Your task to perform on an android device: change timer sound Image 0: 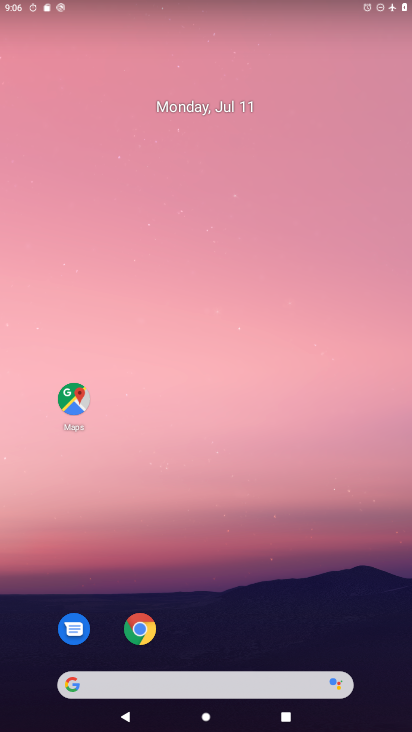
Step 0: drag from (261, 643) to (285, 56)
Your task to perform on an android device: change timer sound Image 1: 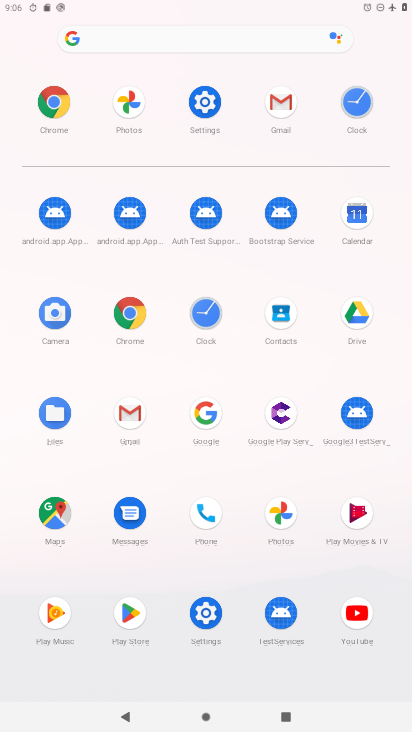
Step 1: click (205, 314)
Your task to perform on an android device: change timer sound Image 2: 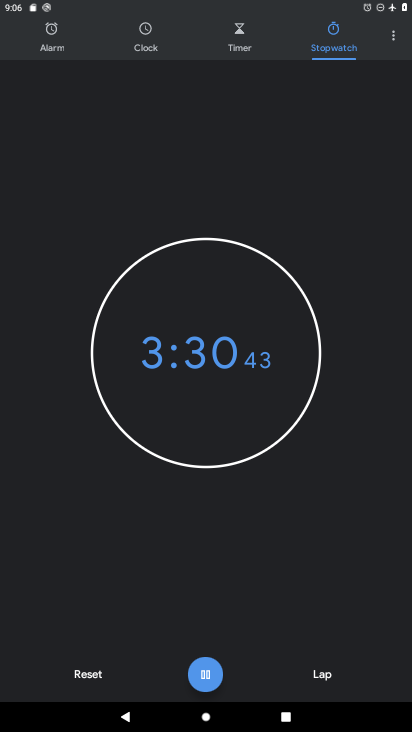
Step 2: click (388, 34)
Your task to perform on an android device: change timer sound Image 3: 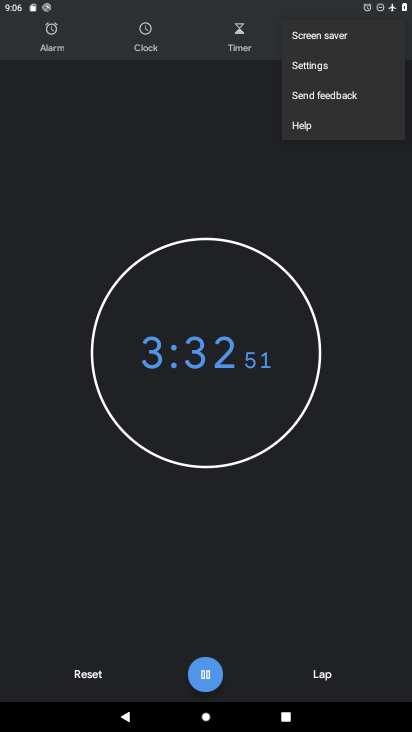
Step 3: click (310, 65)
Your task to perform on an android device: change timer sound Image 4: 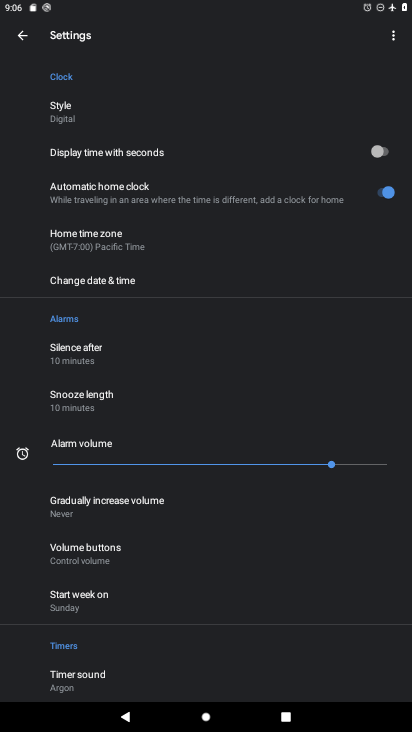
Step 4: click (106, 679)
Your task to perform on an android device: change timer sound Image 5: 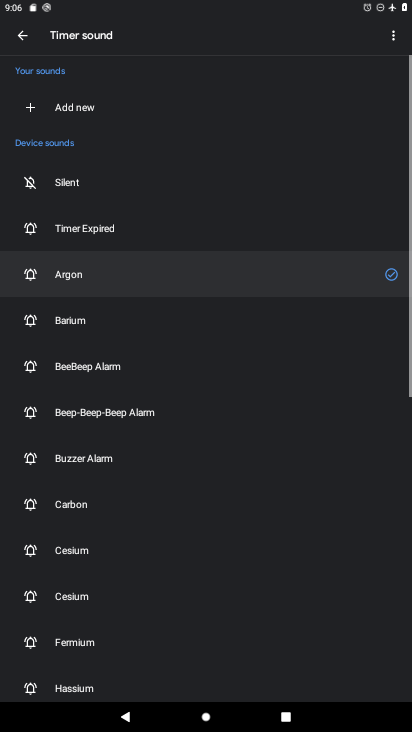
Step 5: click (72, 325)
Your task to perform on an android device: change timer sound Image 6: 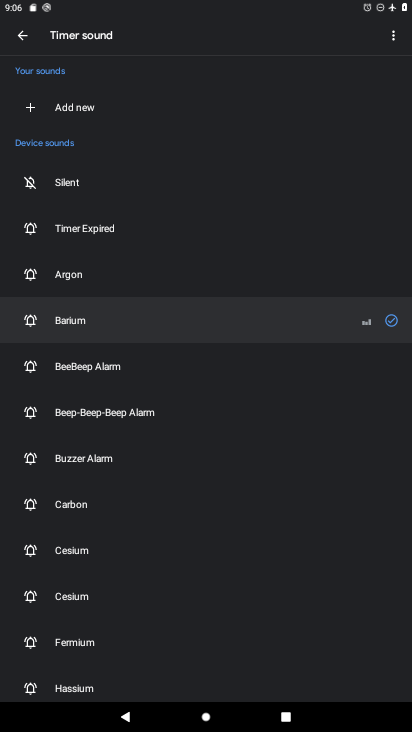
Step 6: task complete